Your task to perform on an android device: Go to CNN.com Image 0: 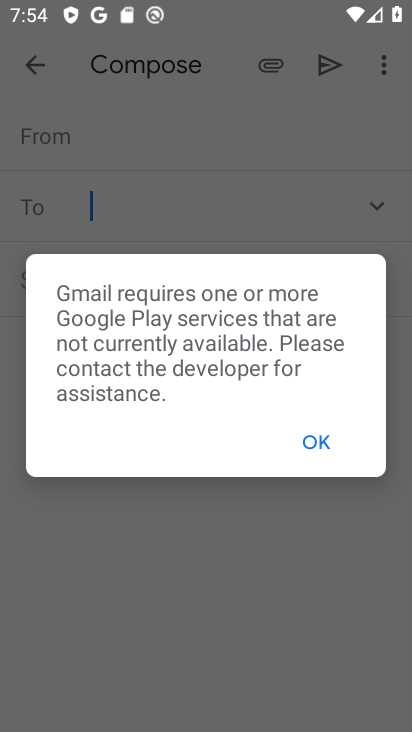
Step 0: press back button
Your task to perform on an android device: Go to CNN.com Image 1: 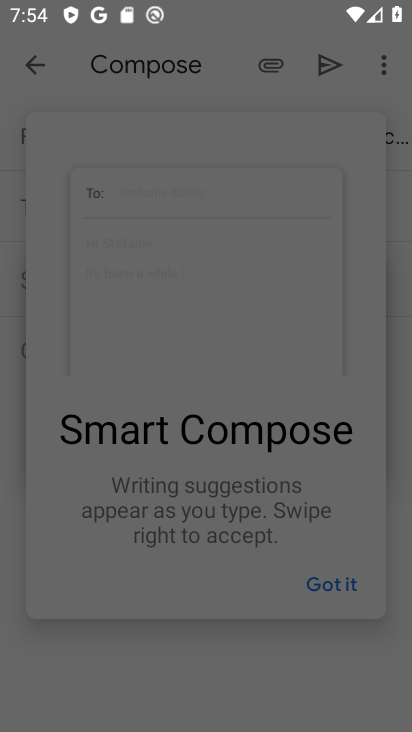
Step 1: press back button
Your task to perform on an android device: Go to CNN.com Image 2: 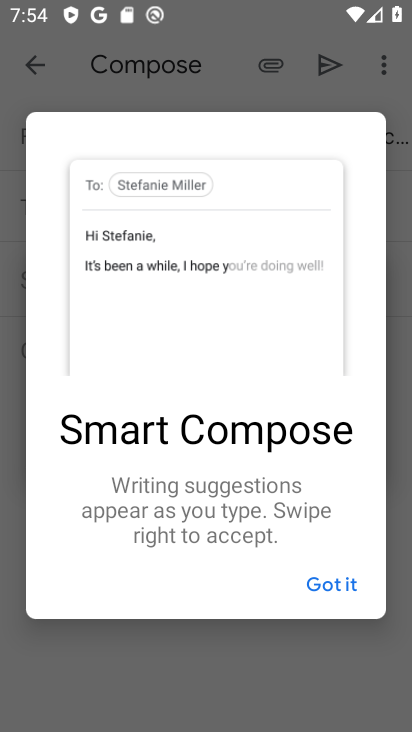
Step 2: press home button
Your task to perform on an android device: Go to CNN.com Image 3: 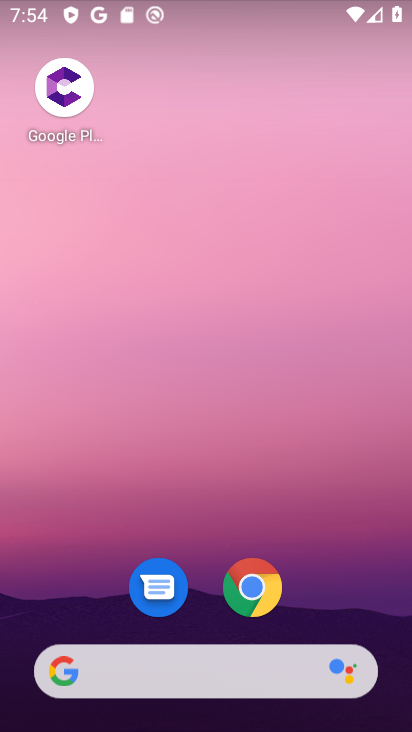
Step 3: click (241, 592)
Your task to perform on an android device: Go to CNN.com Image 4: 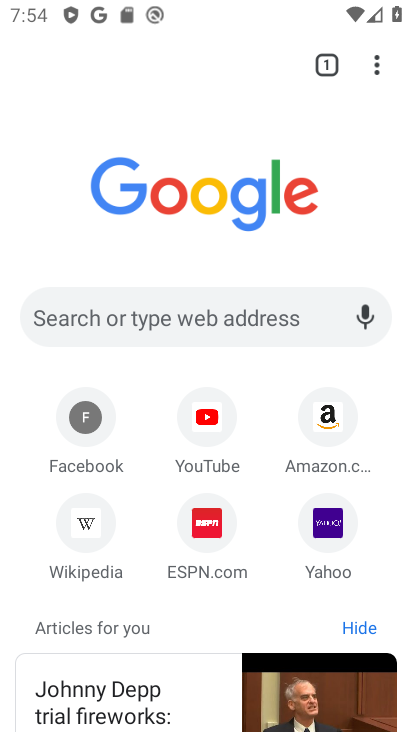
Step 4: click (103, 321)
Your task to perform on an android device: Go to CNN.com Image 5: 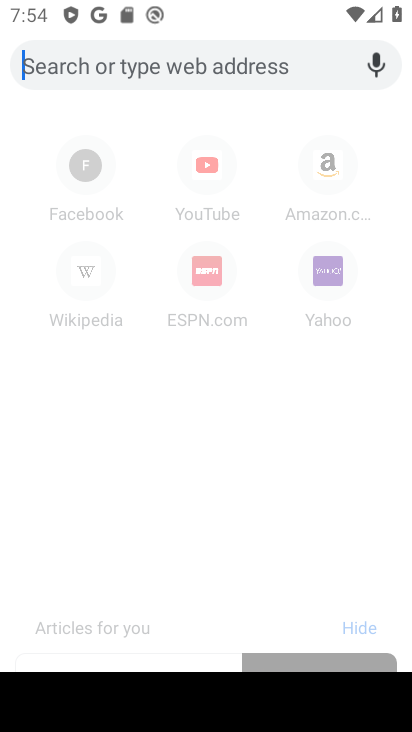
Step 5: type "cnn.com"
Your task to perform on an android device: Go to CNN.com Image 6: 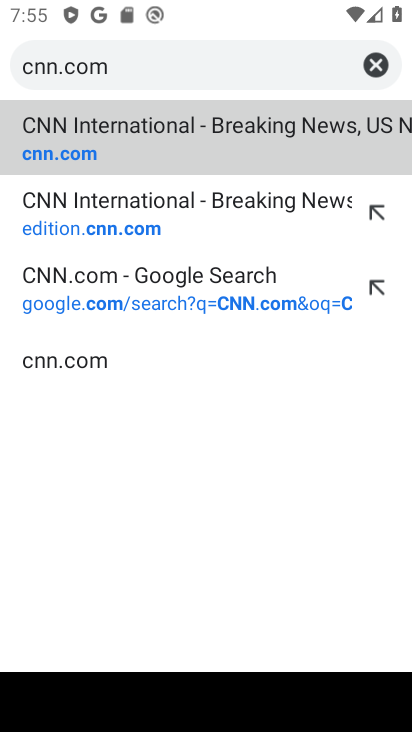
Step 6: click (111, 150)
Your task to perform on an android device: Go to CNN.com Image 7: 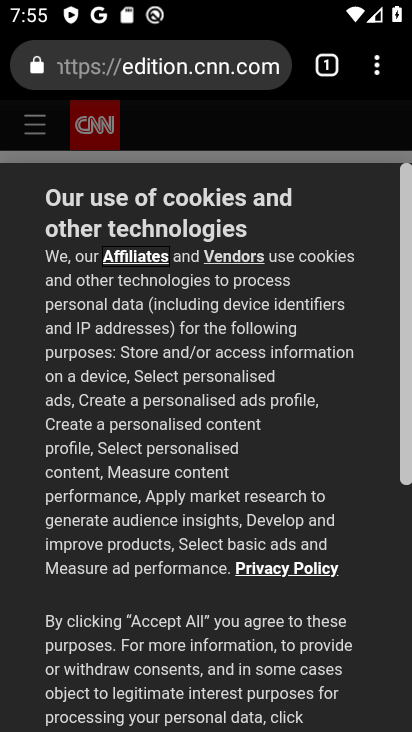
Step 7: task complete